Your task to perform on an android device: Show me popular games on the Play Store Image 0: 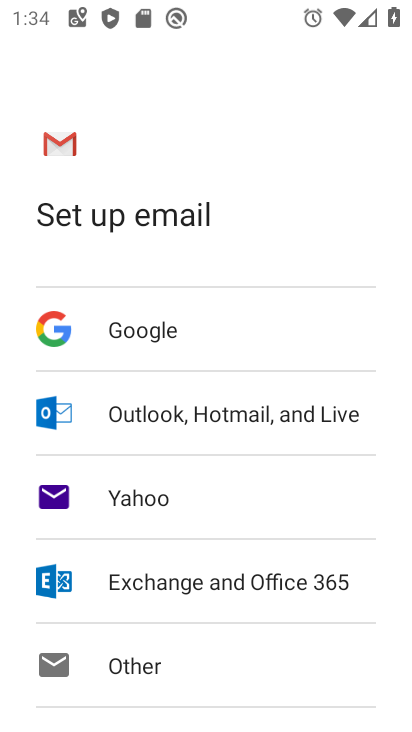
Step 0: press home button
Your task to perform on an android device: Show me popular games on the Play Store Image 1: 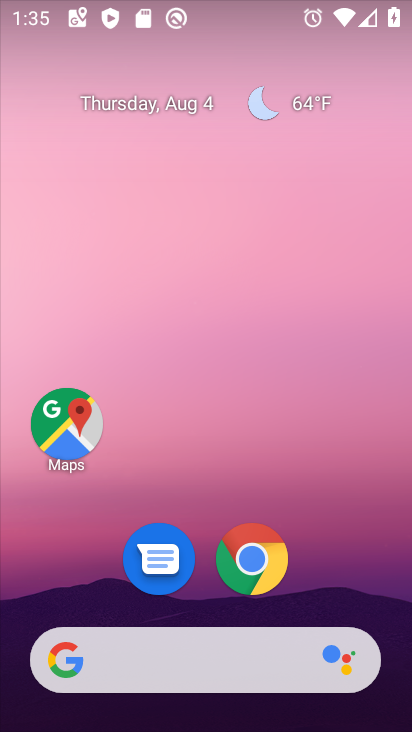
Step 1: drag from (182, 682) to (291, 80)
Your task to perform on an android device: Show me popular games on the Play Store Image 2: 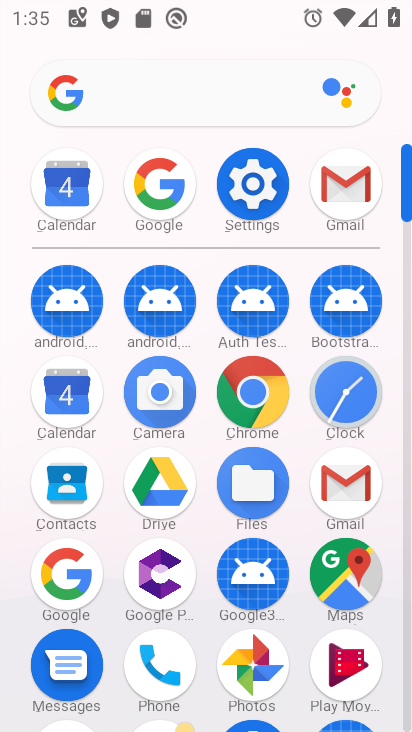
Step 2: drag from (211, 605) to (206, 257)
Your task to perform on an android device: Show me popular games on the Play Store Image 3: 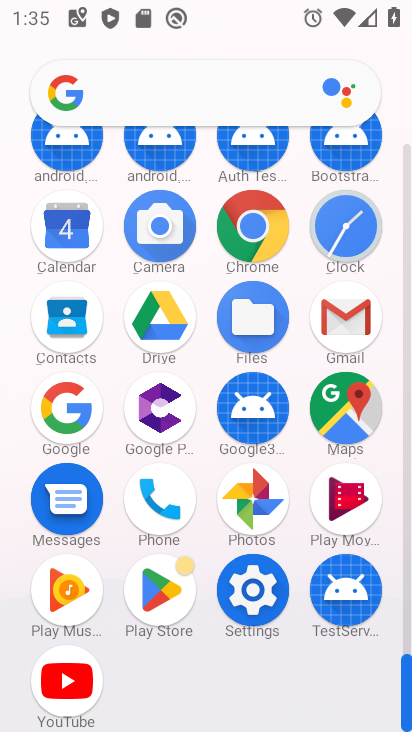
Step 3: click (171, 591)
Your task to perform on an android device: Show me popular games on the Play Store Image 4: 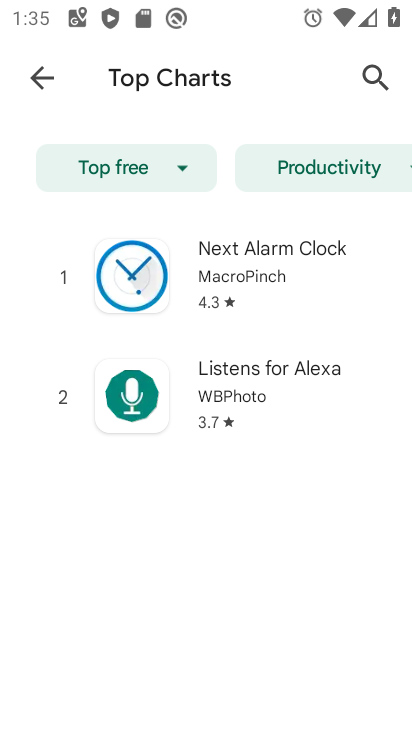
Step 4: press back button
Your task to perform on an android device: Show me popular games on the Play Store Image 5: 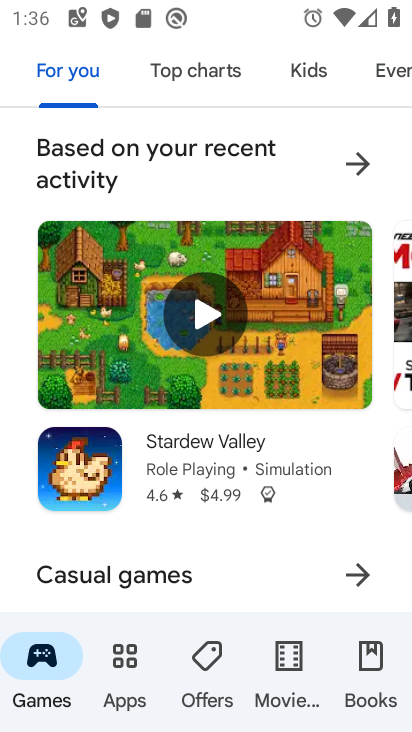
Step 5: click (55, 684)
Your task to perform on an android device: Show me popular games on the Play Store Image 6: 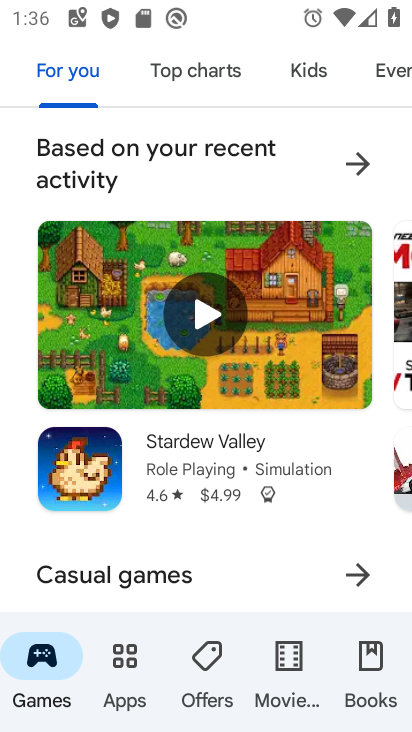
Step 6: drag from (225, 142) to (265, 547)
Your task to perform on an android device: Show me popular games on the Play Store Image 7: 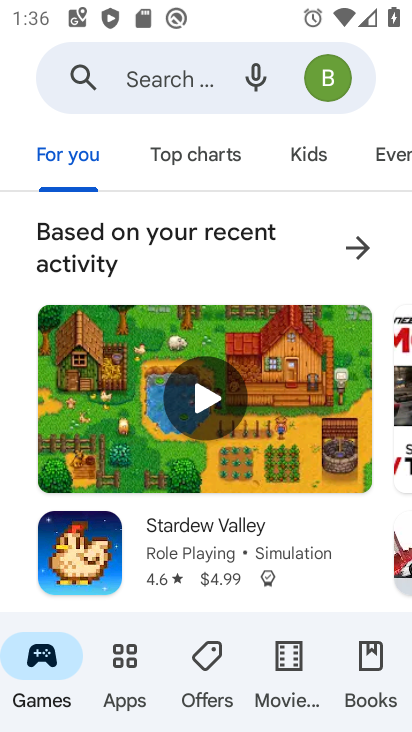
Step 7: click (152, 85)
Your task to perform on an android device: Show me popular games on the Play Store Image 8: 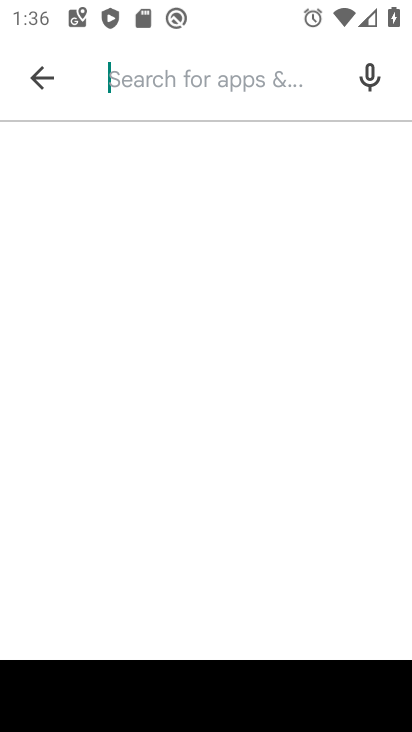
Step 8: type "Popular games"
Your task to perform on an android device: Show me popular games on the Play Store Image 9: 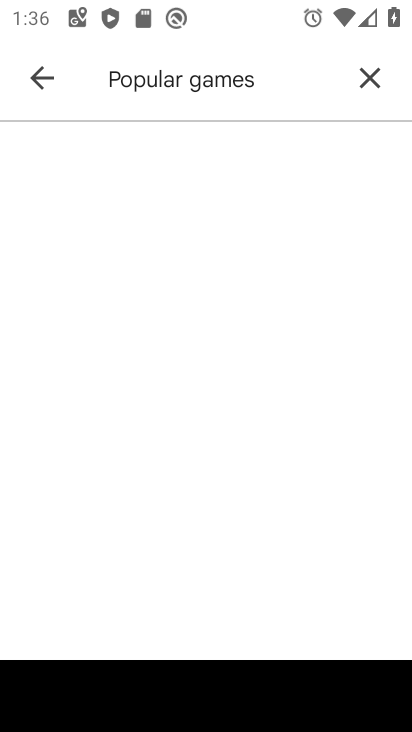
Step 9: task complete